Your task to perform on an android device: Open Yahoo.com Image 0: 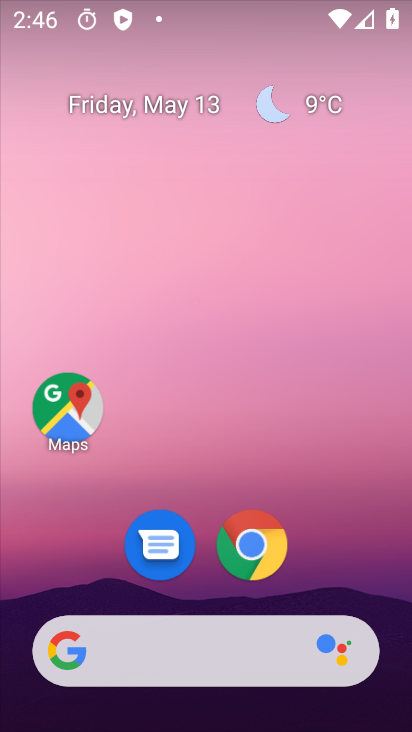
Step 0: click (258, 536)
Your task to perform on an android device: Open Yahoo.com Image 1: 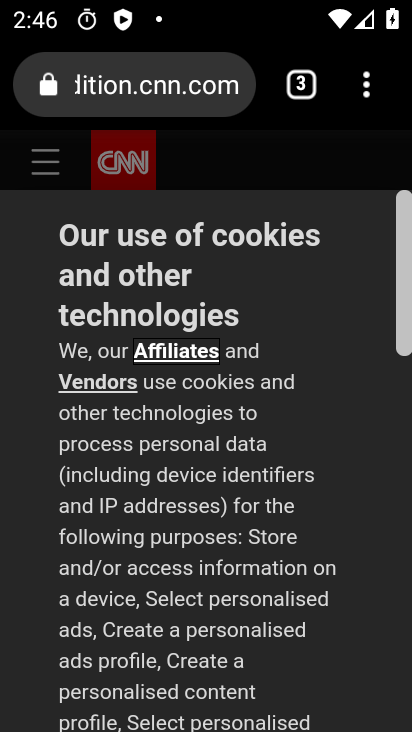
Step 1: click (289, 75)
Your task to perform on an android device: Open Yahoo.com Image 2: 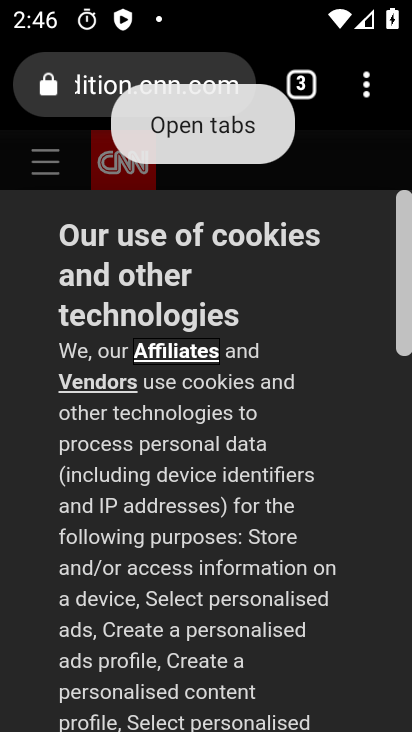
Step 2: click (309, 93)
Your task to perform on an android device: Open Yahoo.com Image 3: 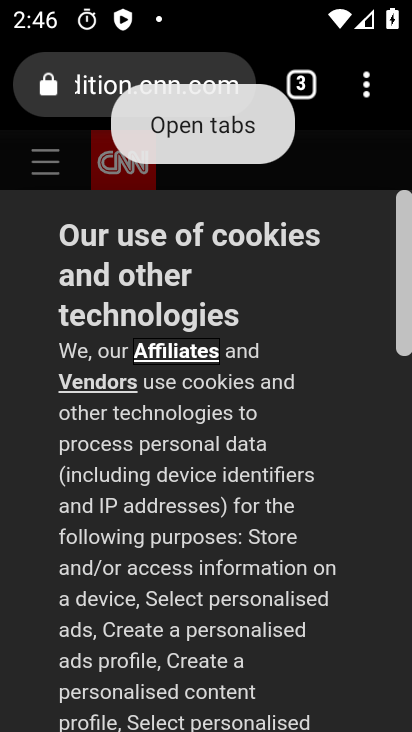
Step 3: click (309, 93)
Your task to perform on an android device: Open Yahoo.com Image 4: 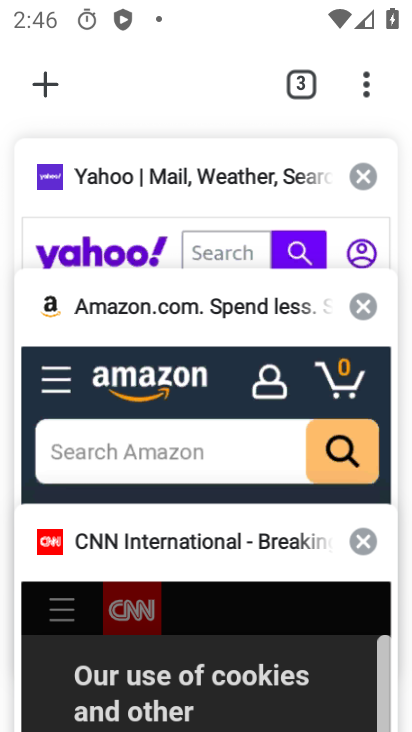
Step 4: click (356, 300)
Your task to perform on an android device: Open Yahoo.com Image 5: 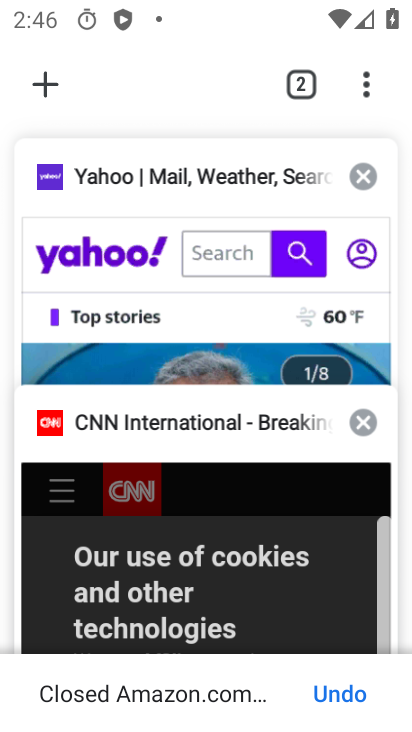
Step 5: click (358, 176)
Your task to perform on an android device: Open Yahoo.com Image 6: 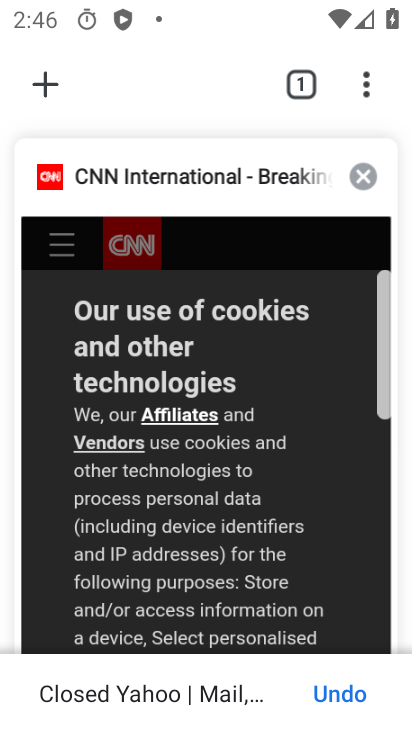
Step 6: click (360, 176)
Your task to perform on an android device: Open Yahoo.com Image 7: 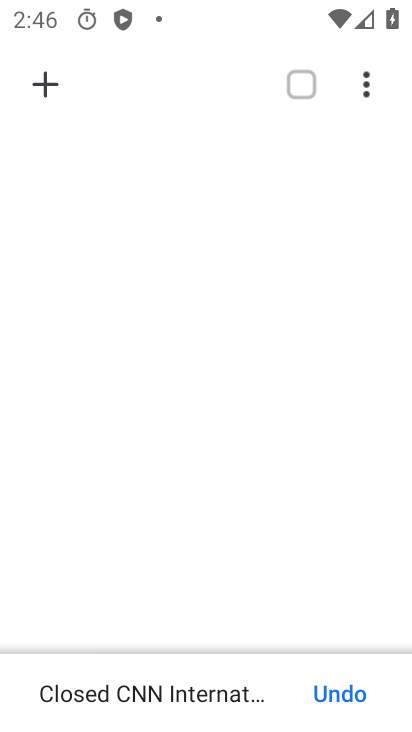
Step 7: click (47, 76)
Your task to perform on an android device: Open Yahoo.com Image 8: 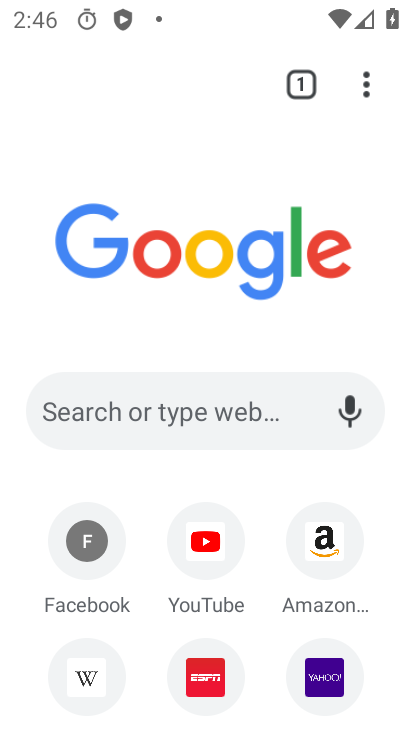
Step 8: click (263, 394)
Your task to perform on an android device: Open Yahoo.com Image 9: 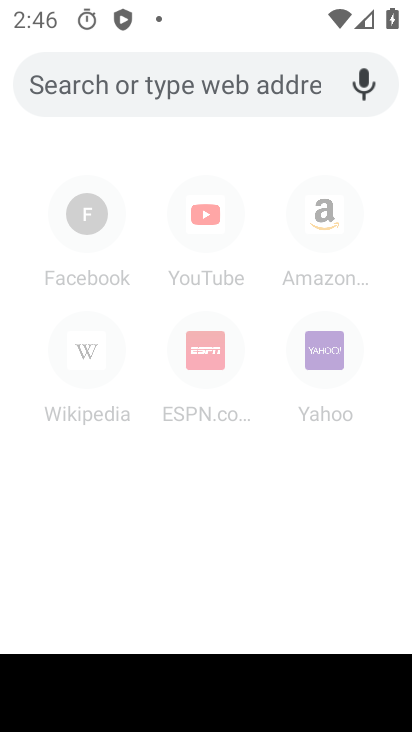
Step 9: type "Yahoo.com"
Your task to perform on an android device: Open Yahoo.com Image 10: 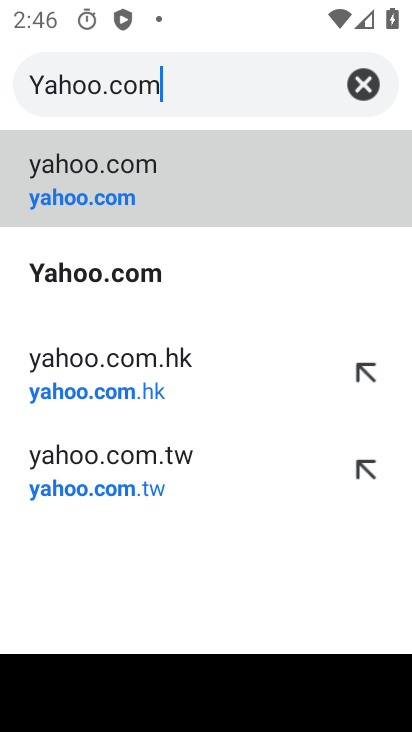
Step 10: click (121, 194)
Your task to perform on an android device: Open Yahoo.com Image 11: 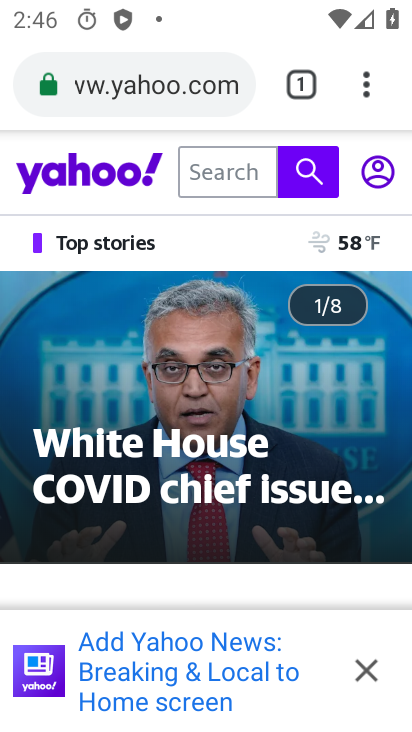
Step 11: task complete